Your task to perform on an android device: open wifi settings Image 0: 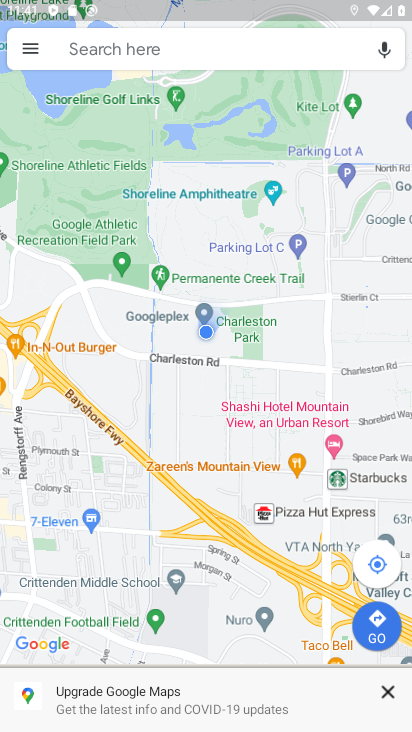
Step 0: press home button
Your task to perform on an android device: open wifi settings Image 1: 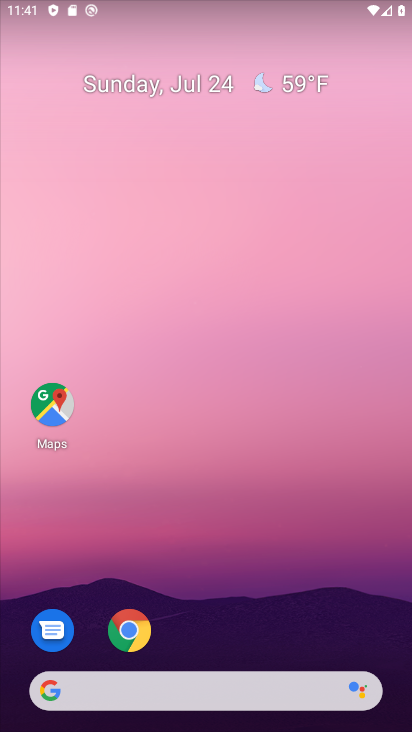
Step 1: drag from (222, 586) to (224, 202)
Your task to perform on an android device: open wifi settings Image 2: 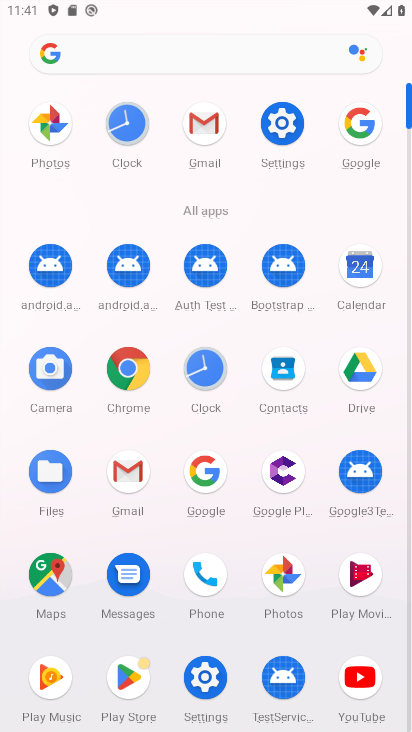
Step 2: click (278, 123)
Your task to perform on an android device: open wifi settings Image 3: 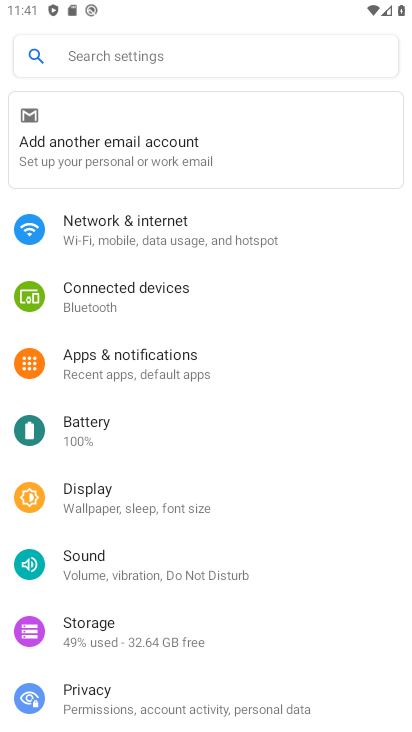
Step 3: click (156, 225)
Your task to perform on an android device: open wifi settings Image 4: 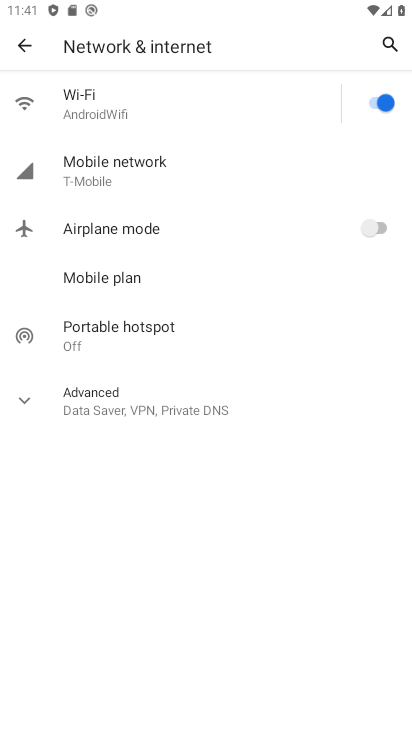
Step 4: click (109, 108)
Your task to perform on an android device: open wifi settings Image 5: 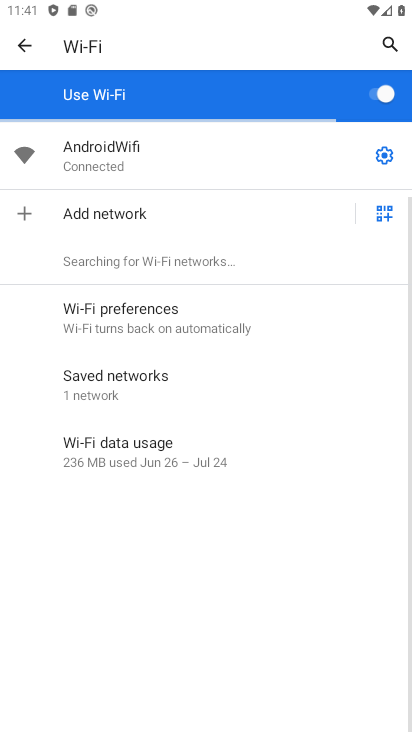
Step 5: click (380, 162)
Your task to perform on an android device: open wifi settings Image 6: 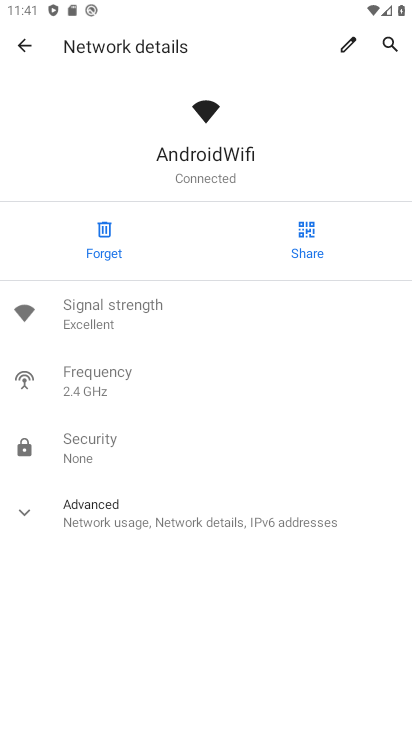
Step 6: click (177, 522)
Your task to perform on an android device: open wifi settings Image 7: 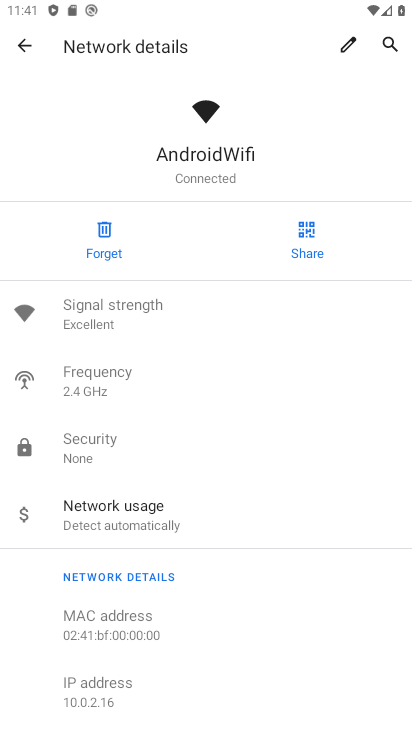
Step 7: task complete